Your task to perform on an android device: Do I have any events today? Image 0: 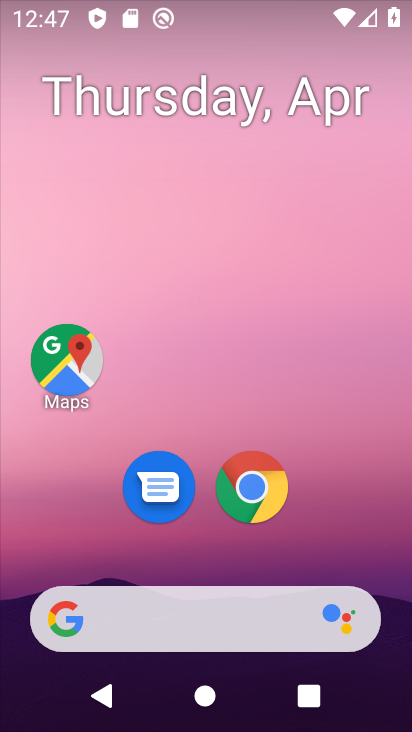
Step 0: drag from (356, 531) to (354, 110)
Your task to perform on an android device: Do I have any events today? Image 1: 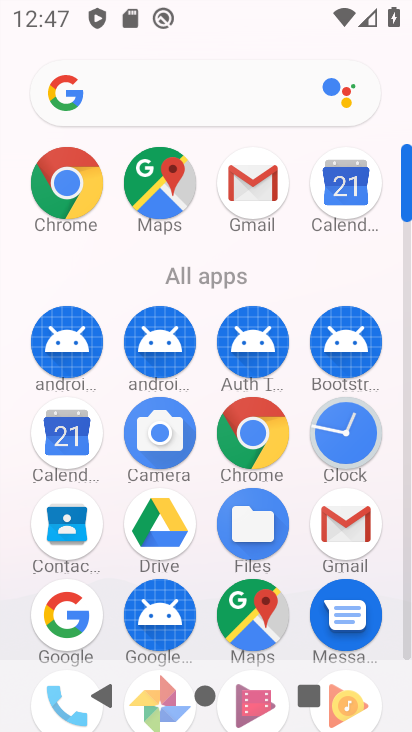
Step 1: click (62, 452)
Your task to perform on an android device: Do I have any events today? Image 2: 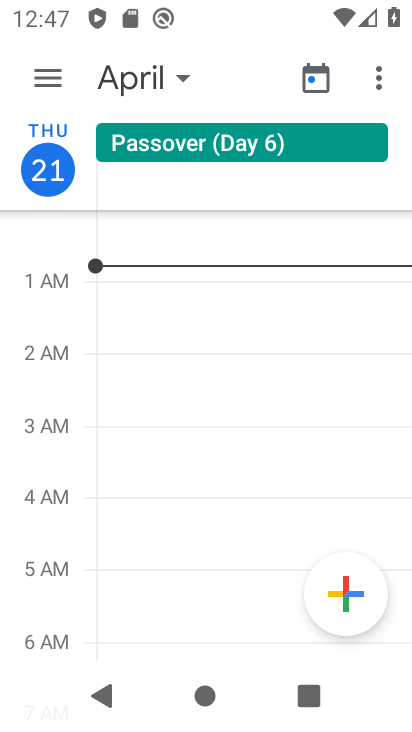
Step 2: click (43, 76)
Your task to perform on an android device: Do I have any events today? Image 3: 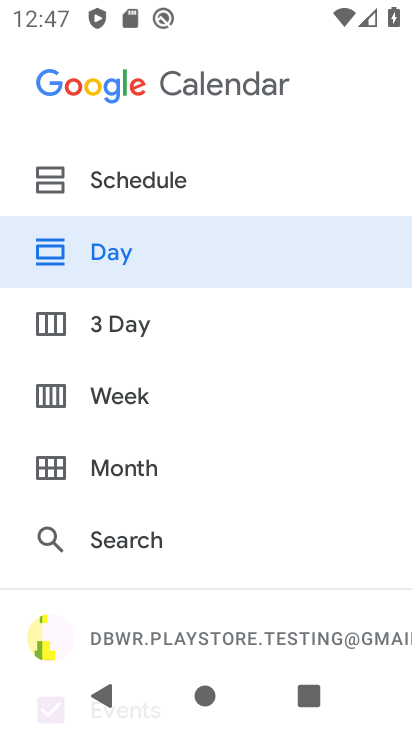
Step 3: click (86, 186)
Your task to perform on an android device: Do I have any events today? Image 4: 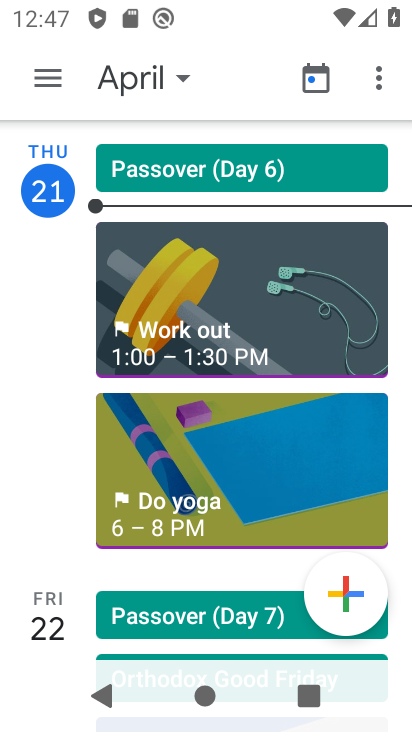
Step 4: click (156, 87)
Your task to perform on an android device: Do I have any events today? Image 5: 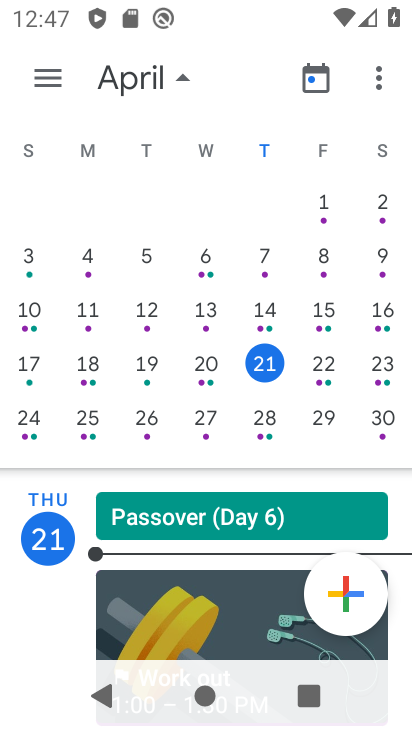
Step 5: click (271, 362)
Your task to perform on an android device: Do I have any events today? Image 6: 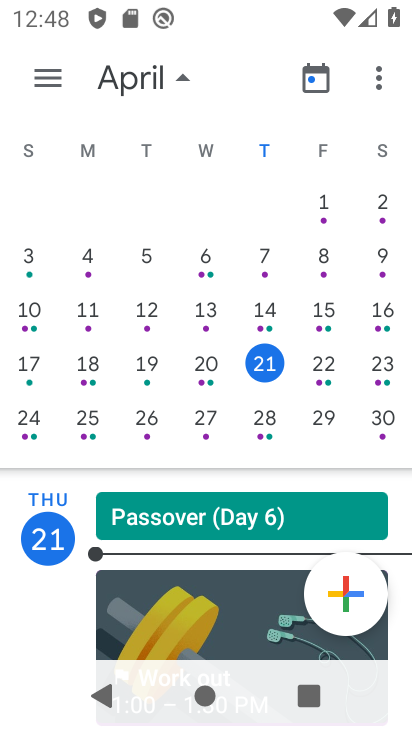
Step 6: click (263, 370)
Your task to perform on an android device: Do I have any events today? Image 7: 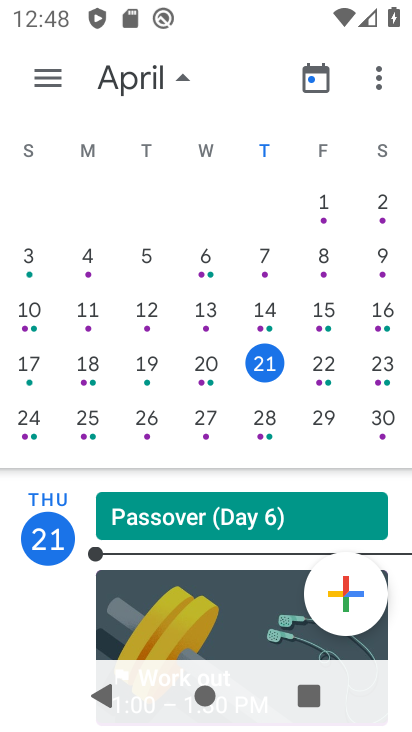
Step 7: task complete